Your task to perform on an android device: uninstall "Microsoft Authenticator" Image 0: 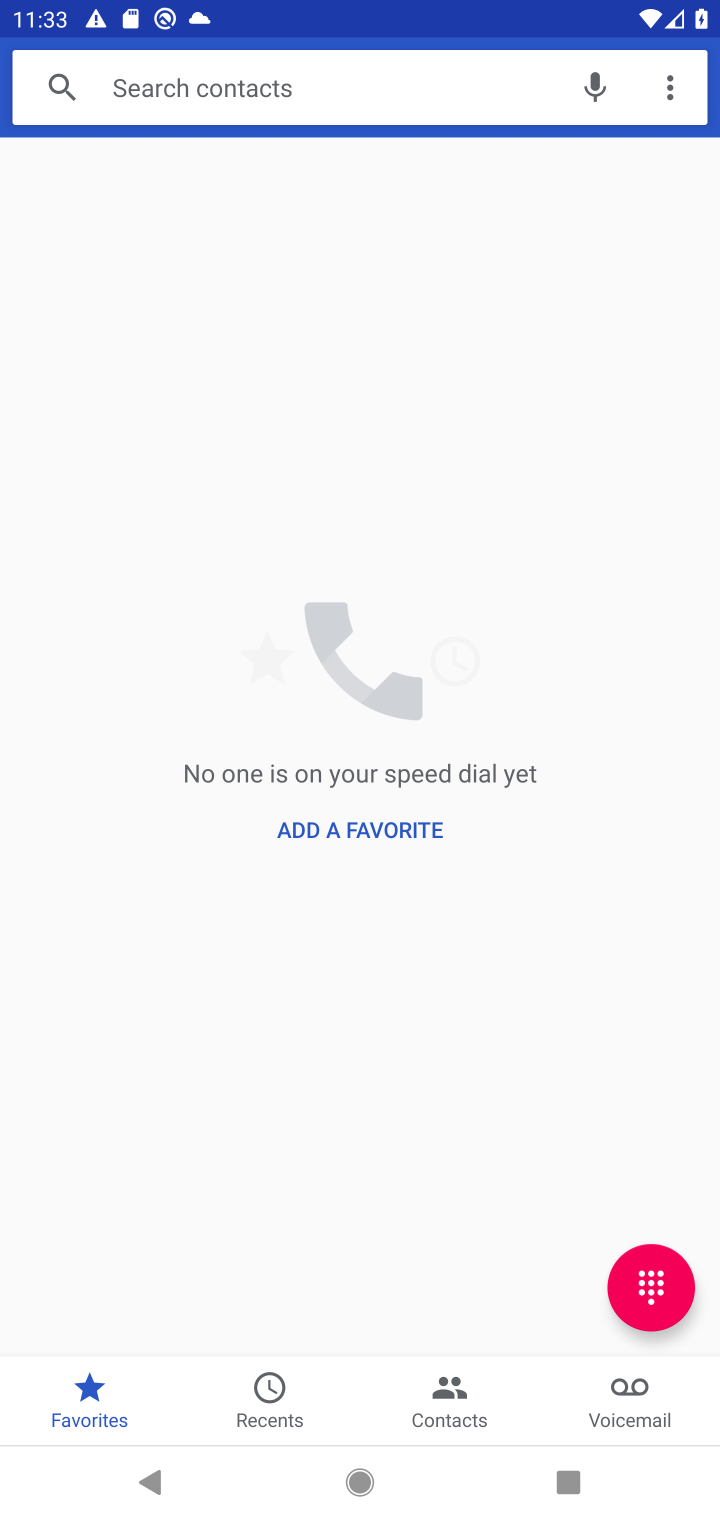
Step 0: press home button
Your task to perform on an android device: uninstall "Microsoft Authenticator" Image 1: 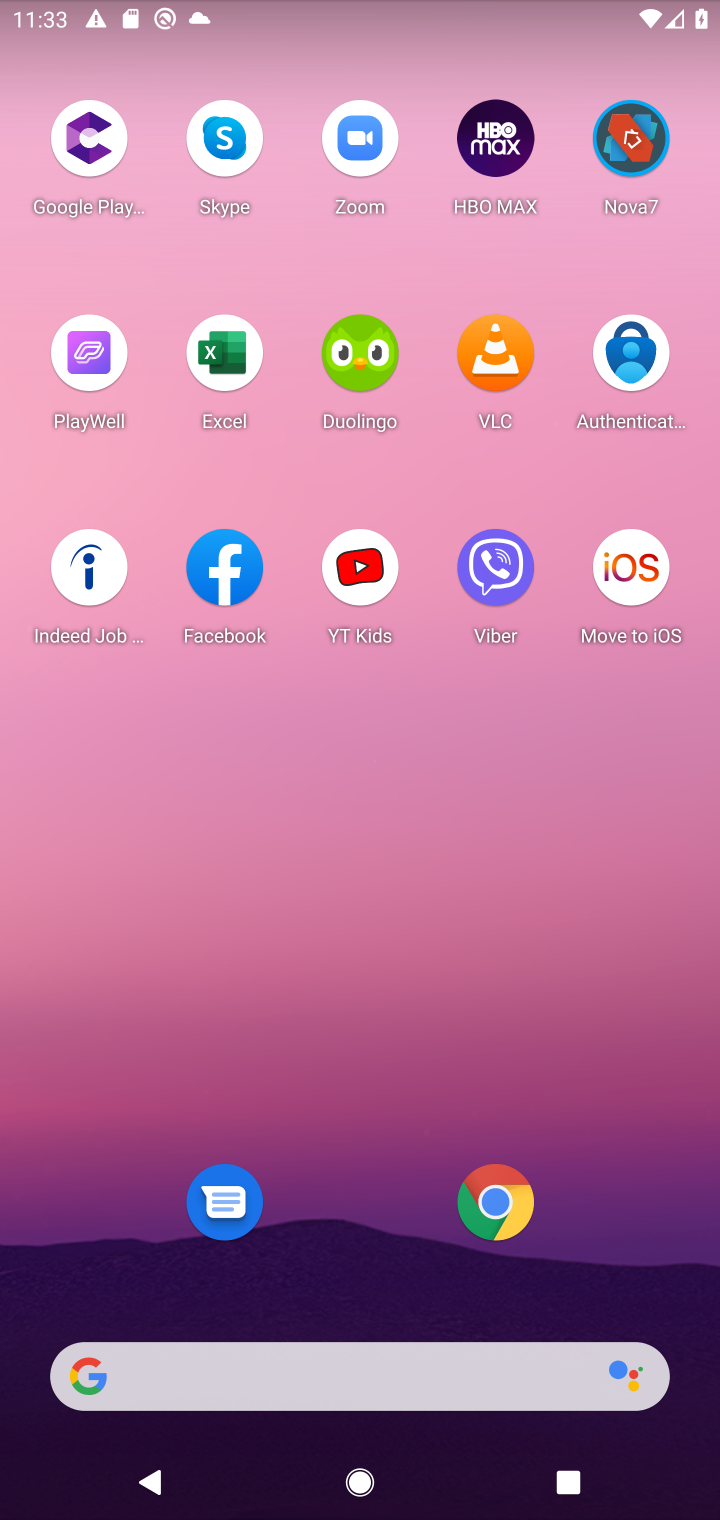
Step 1: click (606, 363)
Your task to perform on an android device: uninstall "Microsoft Authenticator" Image 2: 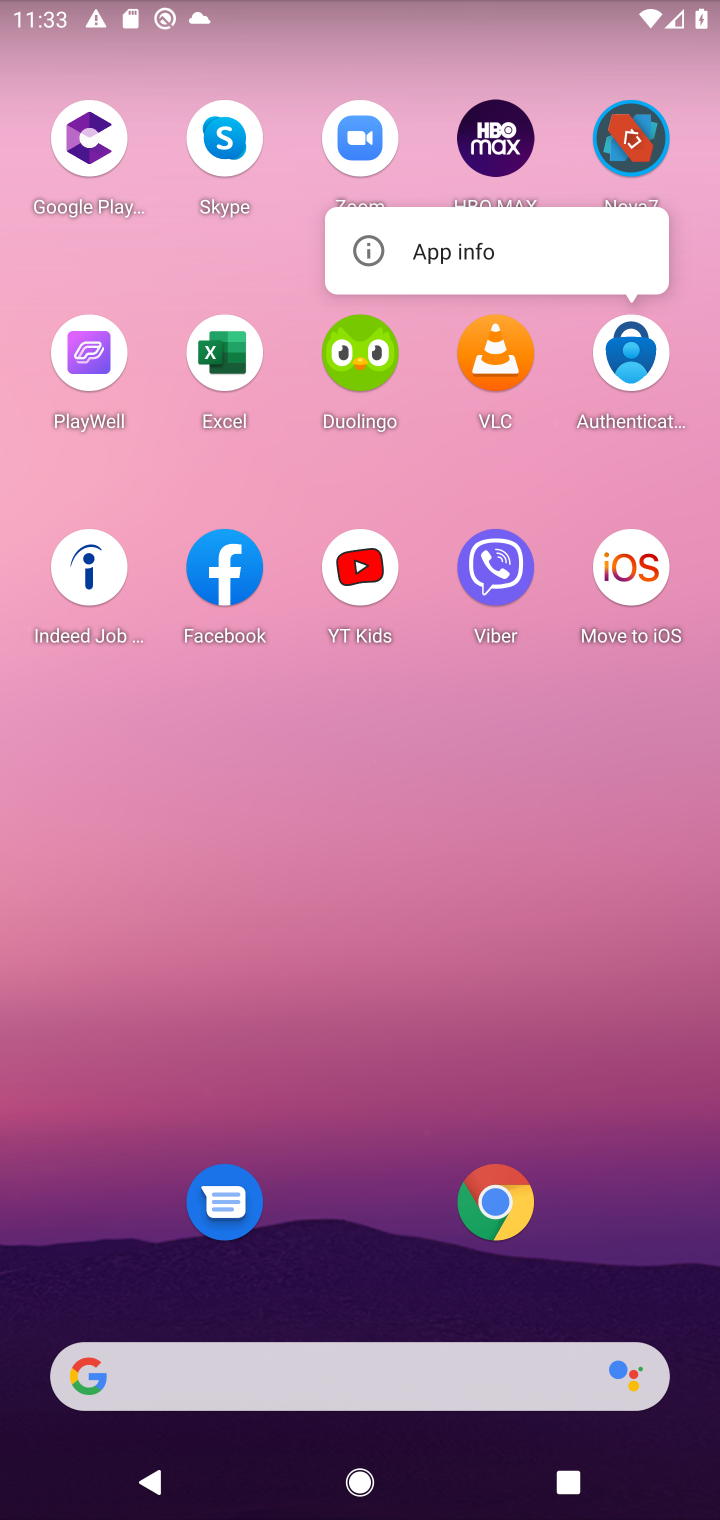
Step 2: click (481, 247)
Your task to perform on an android device: uninstall "Microsoft Authenticator" Image 3: 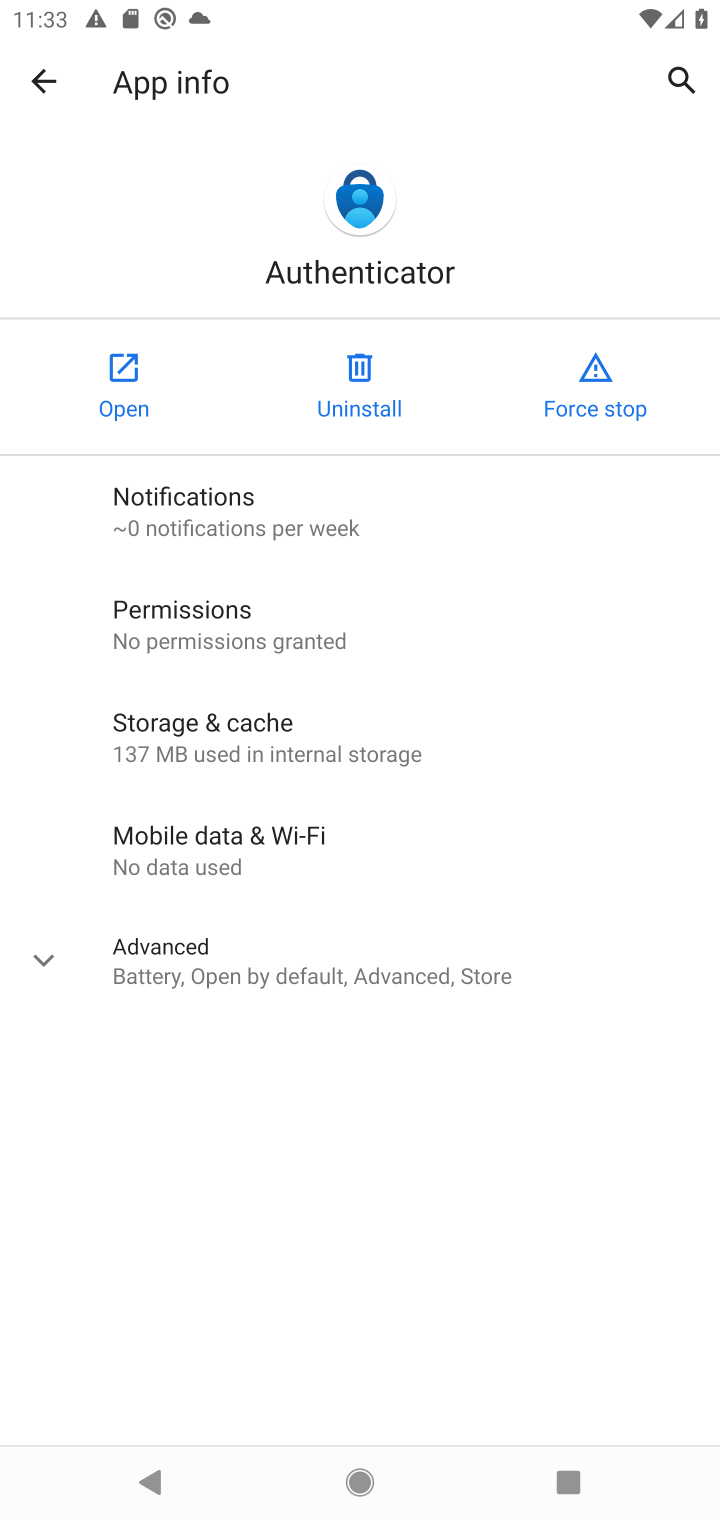
Step 3: click (373, 410)
Your task to perform on an android device: uninstall "Microsoft Authenticator" Image 4: 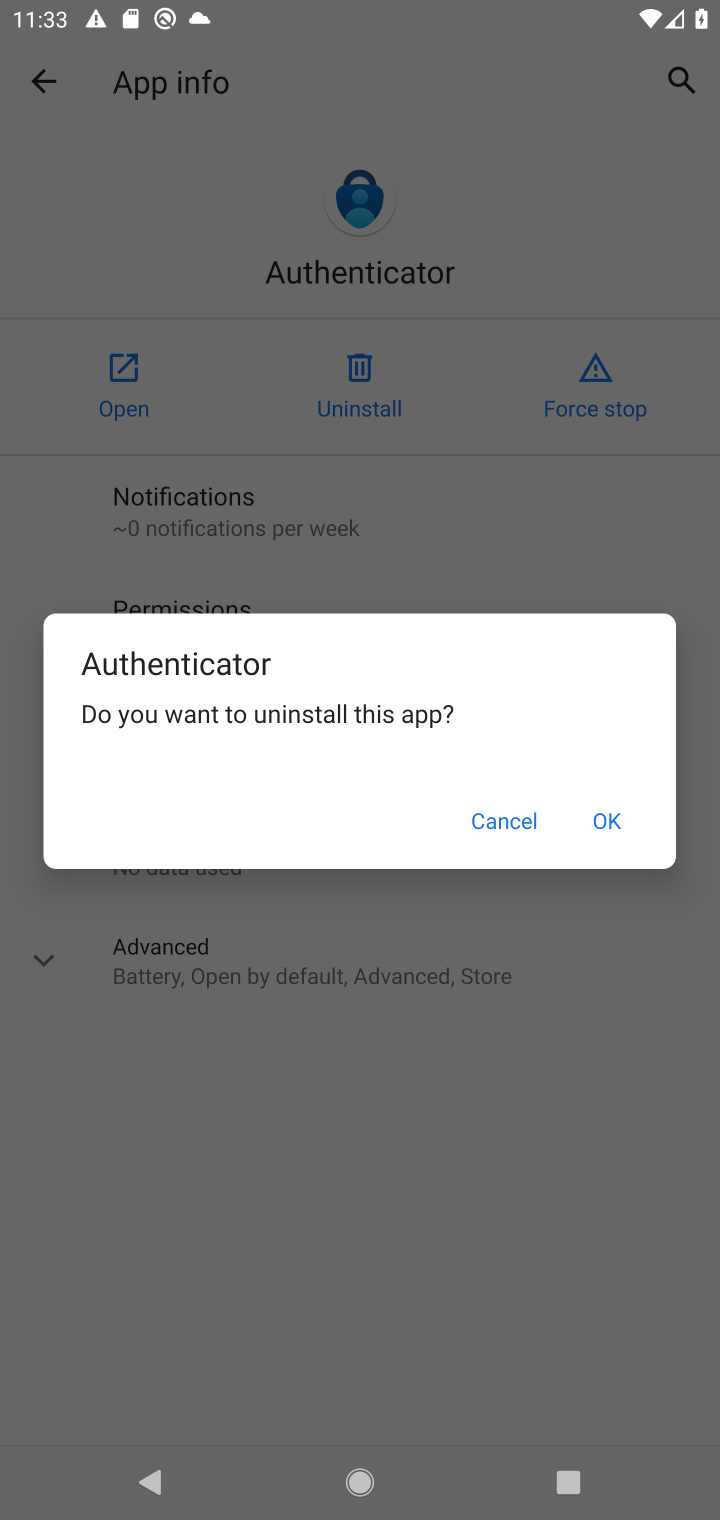
Step 4: click (594, 784)
Your task to perform on an android device: uninstall "Microsoft Authenticator" Image 5: 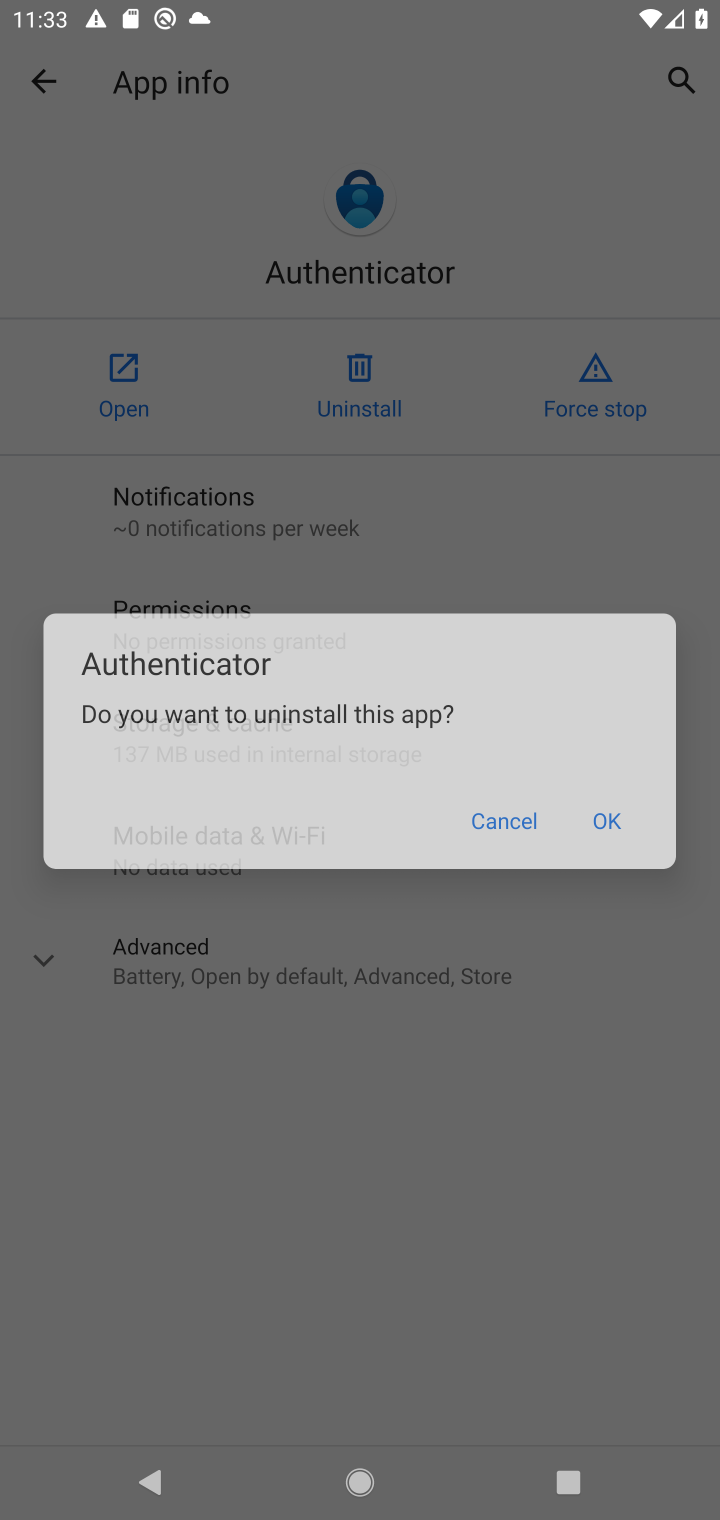
Step 5: task complete